Your task to perform on an android device: add a contact Image 0: 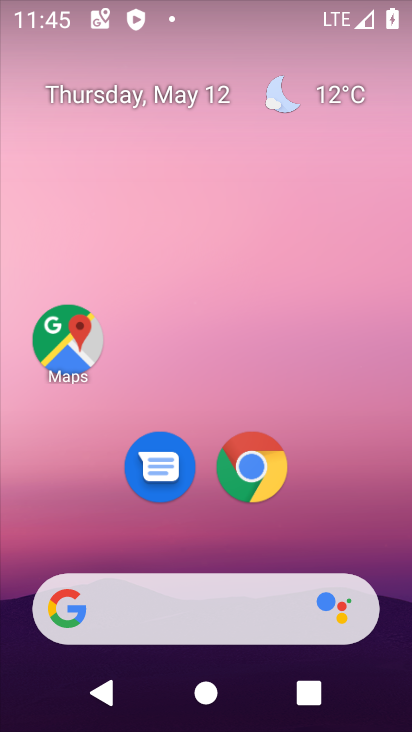
Step 0: drag from (369, 516) to (274, 61)
Your task to perform on an android device: add a contact Image 1: 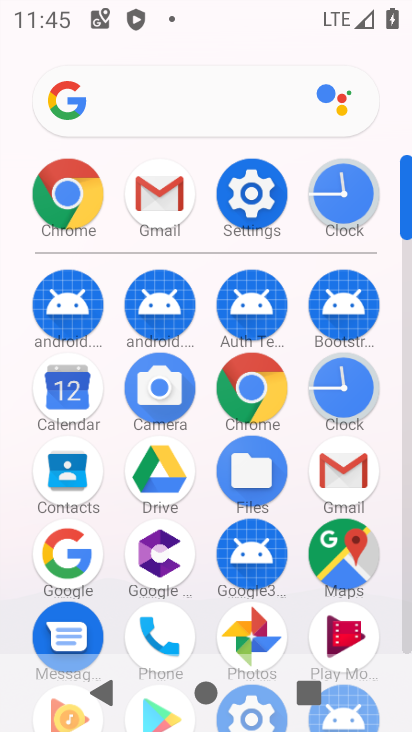
Step 1: drag from (11, 541) to (5, 268)
Your task to perform on an android device: add a contact Image 2: 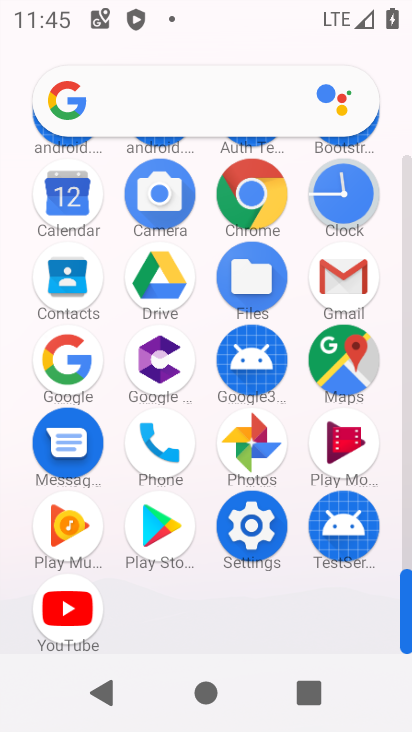
Step 2: click (72, 267)
Your task to perform on an android device: add a contact Image 3: 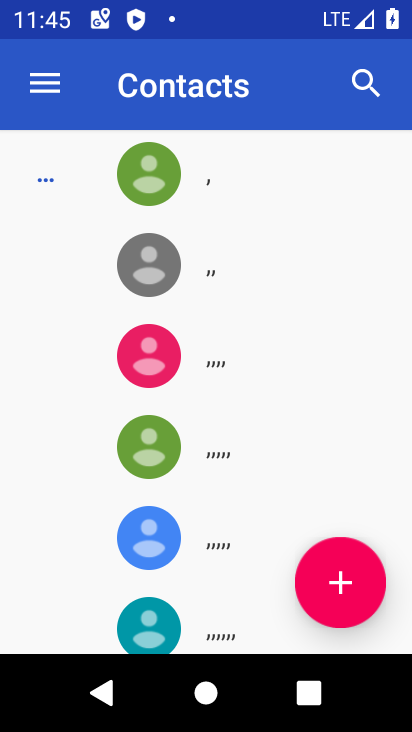
Step 3: click (318, 575)
Your task to perform on an android device: add a contact Image 4: 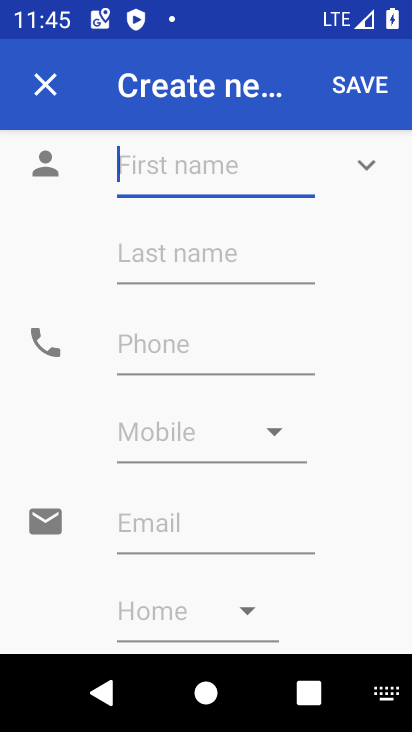
Step 4: type "HJKL"
Your task to perform on an android device: add a contact Image 5: 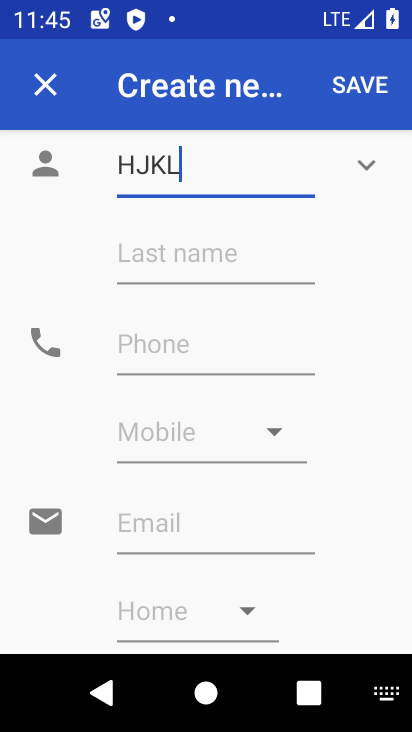
Step 5: type ""
Your task to perform on an android device: add a contact Image 6: 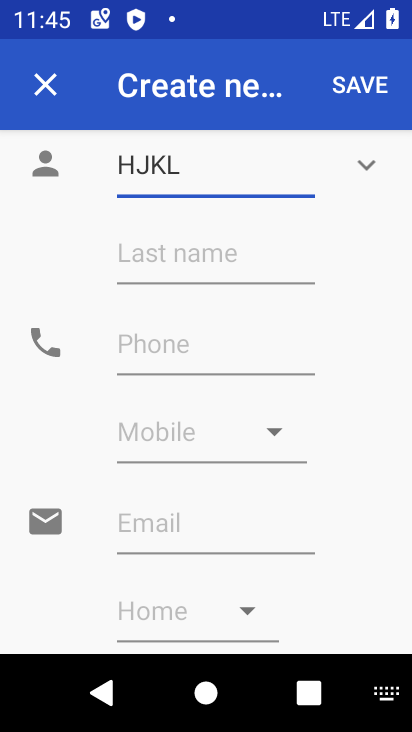
Step 6: click (159, 339)
Your task to perform on an android device: add a contact Image 7: 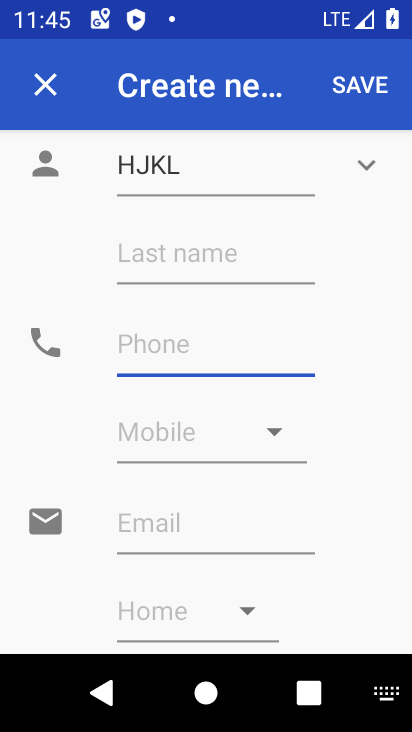
Step 7: type "234543"
Your task to perform on an android device: add a contact Image 8: 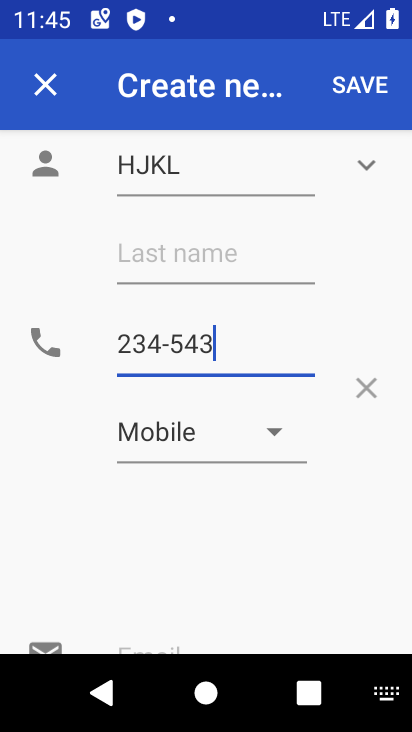
Step 8: type ""
Your task to perform on an android device: add a contact Image 9: 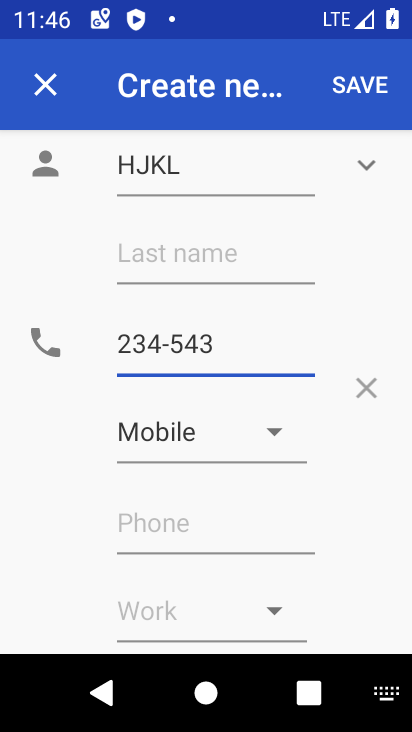
Step 9: click (346, 81)
Your task to perform on an android device: add a contact Image 10: 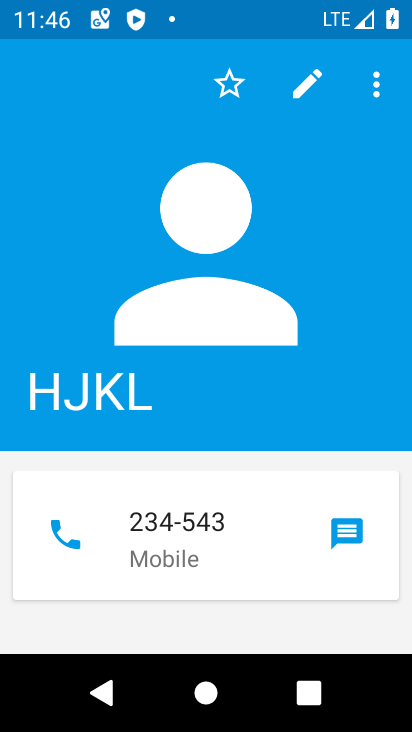
Step 10: task complete